Your task to perform on an android device: Open the stopwatch Image 0: 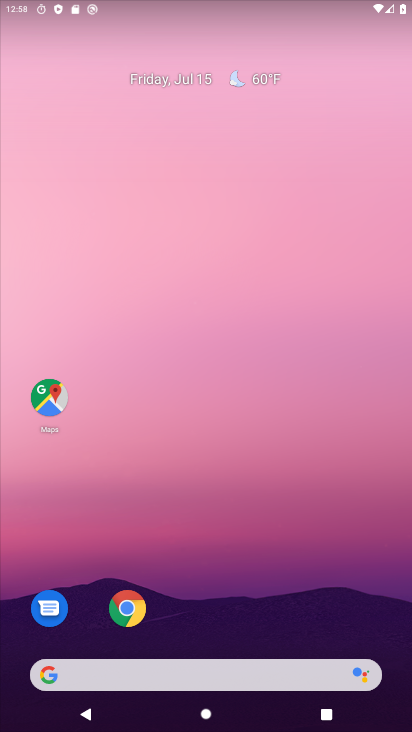
Step 0: press home button
Your task to perform on an android device: Open the stopwatch Image 1: 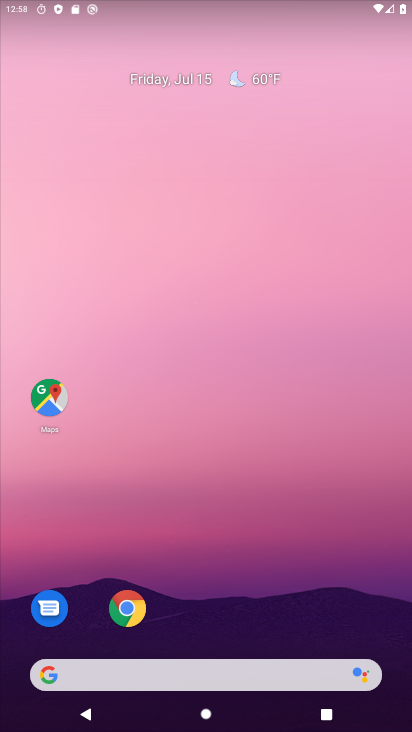
Step 1: drag from (282, 665) to (313, 84)
Your task to perform on an android device: Open the stopwatch Image 2: 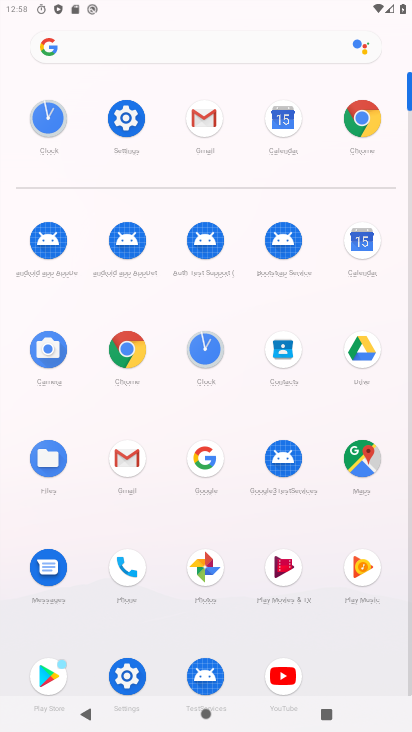
Step 2: click (61, 137)
Your task to perform on an android device: Open the stopwatch Image 3: 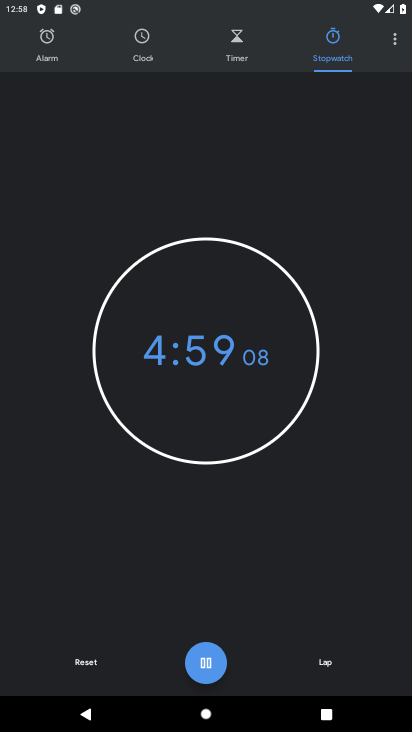
Step 3: click (90, 658)
Your task to perform on an android device: Open the stopwatch Image 4: 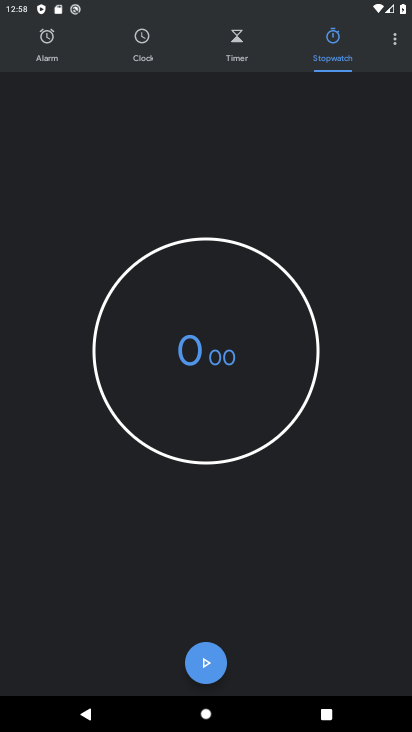
Step 4: task complete